Your task to perform on an android device: open app "Pandora - Music & Podcasts" (install if not already installed), go to login, and select forgot password Image 0: 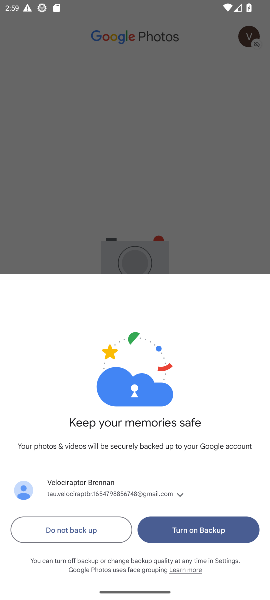
Step 0: press home button
Your task to perform on an android device: open app "Pandora - Music & Podcasts" (install if not already installed), go to login, and select forgot password Image 1: 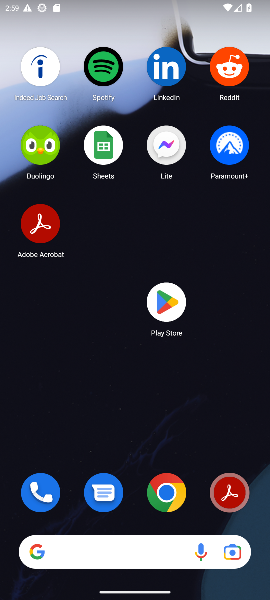
Step 1: click (160, 308)
Your task to perform on an android device: open app "Pandora - Music & Podcasts" (install if not already installed), go to login, and select forgot password Image 2: 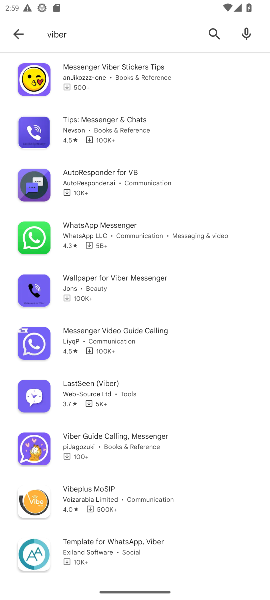
Step 2: click (207, 37)
Your task to perform on an android device: open app "Pandora - Music & Podcasts" (install if not already installed), go to login, and select forgot password Image 3: 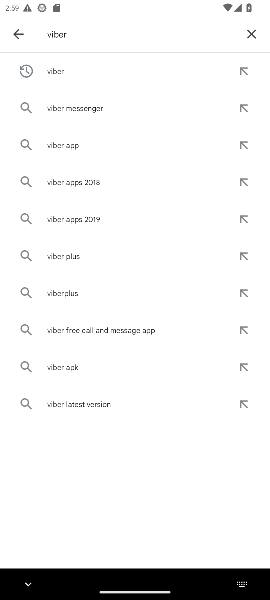
Step 3: click (253, 35)
Your task to perform on an android device: open app "Pandora - Music & Podcasts" (install if not already installed), go to login, and select forgot password Image 4: 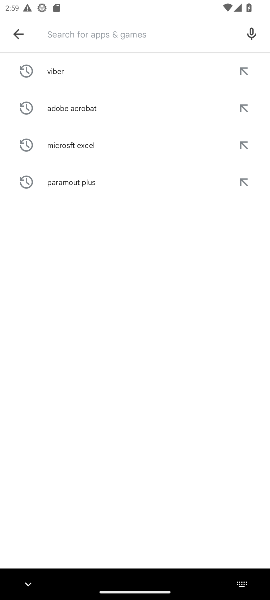
Step 4: type "pandora"
Your task to perform on an android device: open app "Pandora - Music & Podcasts" (install if not already installed), go to login, and select forgot password Image 5: 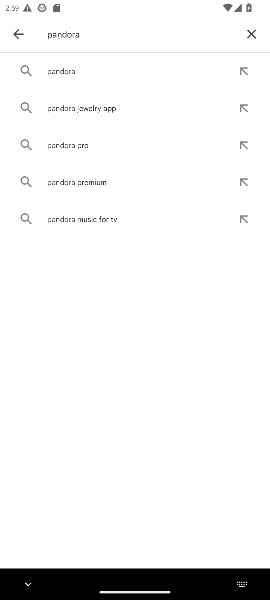
Step 5: click (87, 71)
Your task to perform on an android device: open app "Pandora - Music & Podcasts" (install if not already installed), go to login, and select forgot password Image 6: 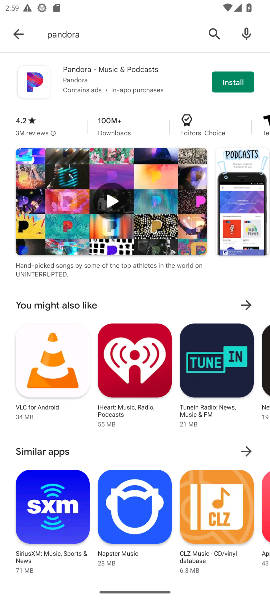
Step 6: click (229, 88)
Your task to perform on an android device: open app "Pandora - Music & Podcasts" (install if not already installed), go to login, and select forgot password Image 7: 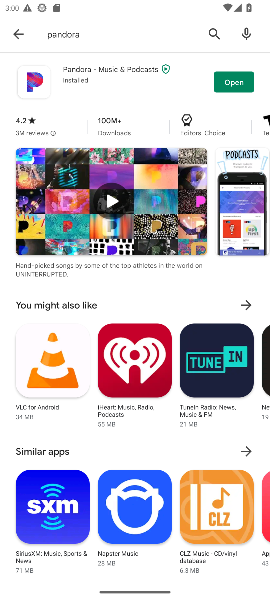
Step 7: click (235, 84)
Your task to perform on an android device: open app "Pandora - Music & Podcasts" (install if not already installed), go to login, and select forgot password Image 8: 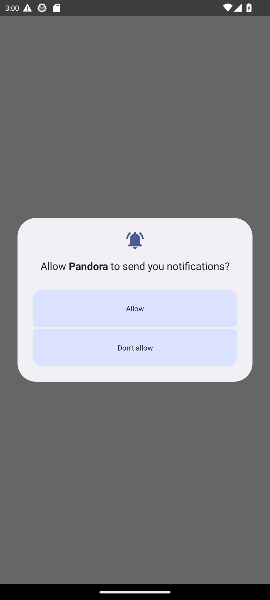
Step 8: click (140, 311)
Your task to perform on an android device: open app "Pandora - Music & Podcasts" (install if not already installed), go to login, and select forgot password Image 9: 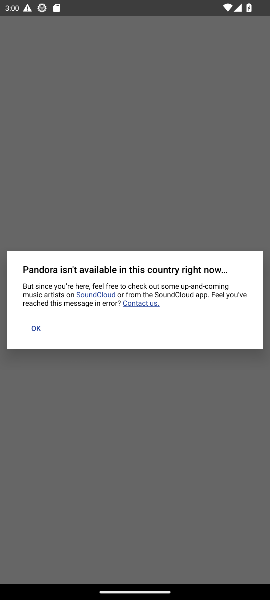
Step 9: click (44, 323)
Your task to perform on an android device: open app "Pandora - Music & Podcasts" (install if not already installed), go to login, and select forgot password Image 10: 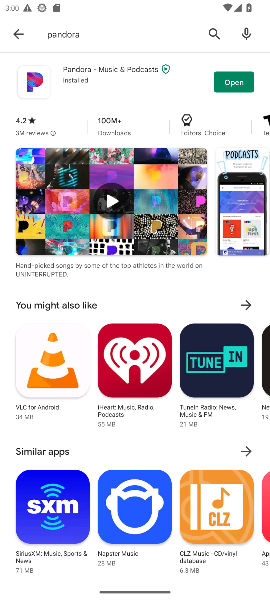
Step 10: task complete